Your task to perform on an android device: Open Yahoo.com Image 0: 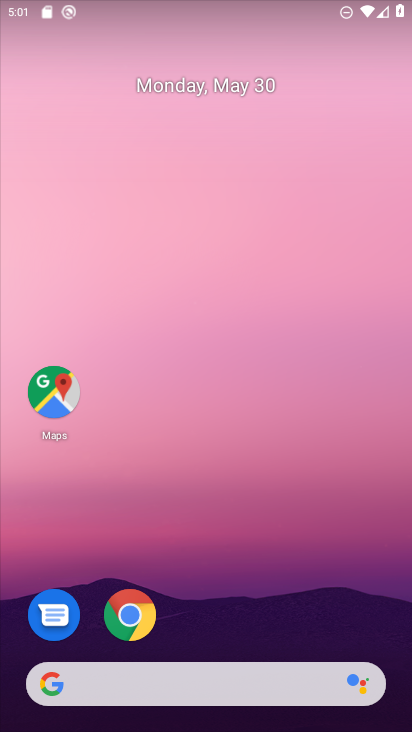
Step 0: click (137, 608)
Your task to perform on an android device: Open Yahoo.com Image 1: 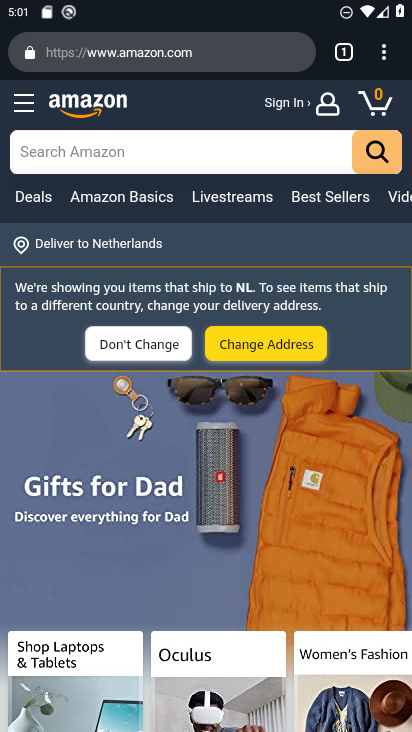
Step 1: click (336, 49)
Your task to perform on an android device: Open Yahoo.com Image 2: 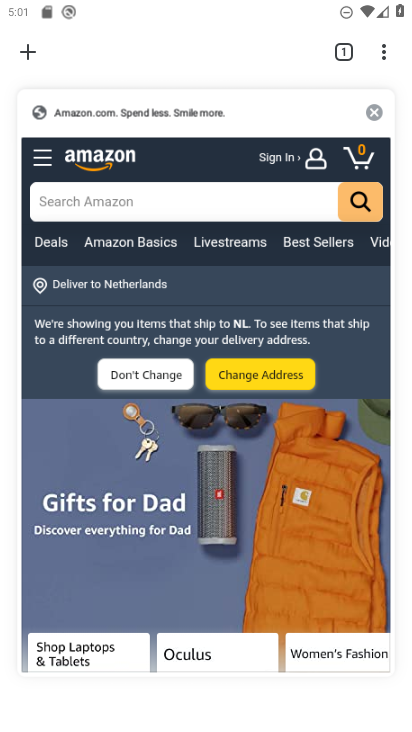
Step 2: click (346, 50)
Your task to perform on an android device: Open Yahoo.com Image 3: 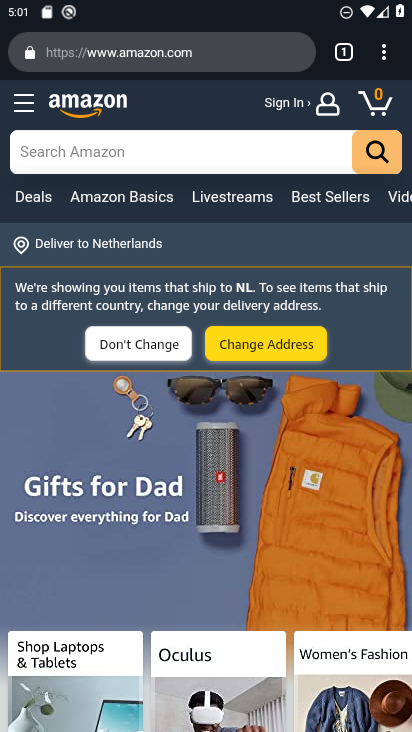
Step 3: click (34, 46)
Your task to perform on an android device: Open Yahoo.com Image 4: 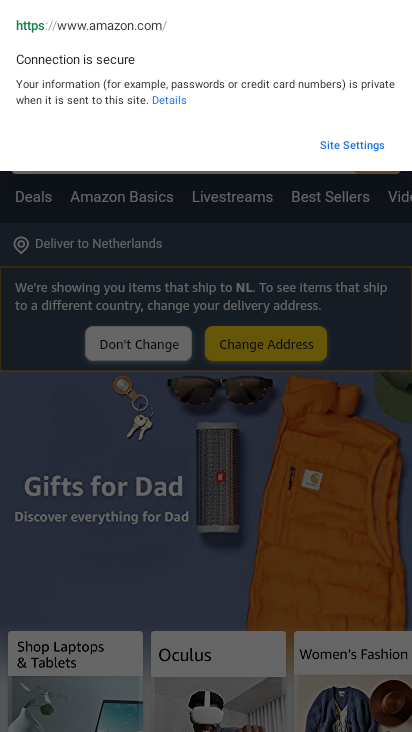
Step 4: click (370, 120)
Your task to perform on an android device: Open Yahoo.com Image 5: 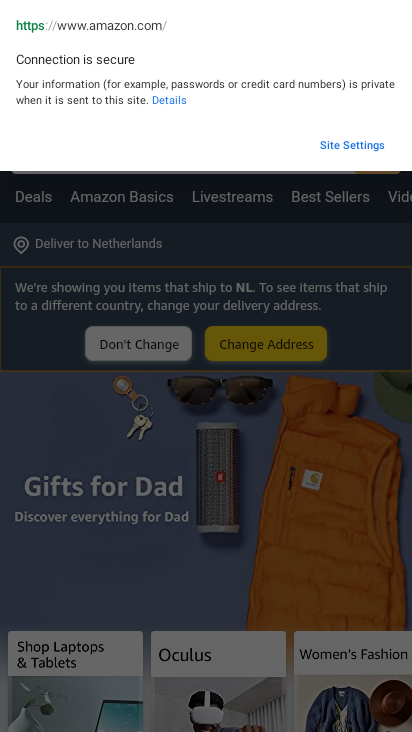
Step 5: click (288, 271)
Your task to perform on an android device: Open Yahoo.com Image 6: 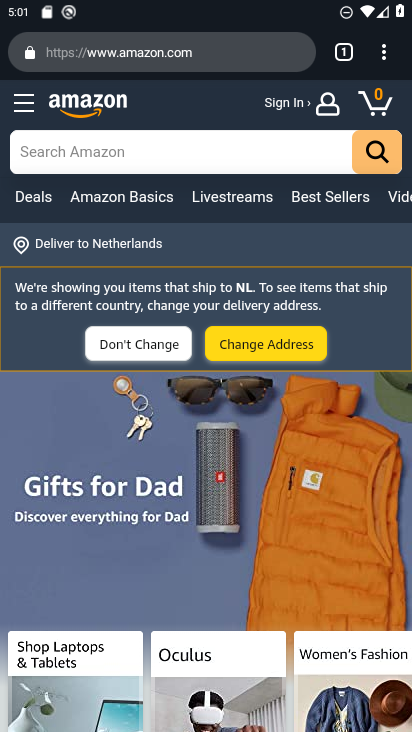
Step 6: click (353, 48)
Your task to perform on an android device: Open Yahoo.com Image 7: 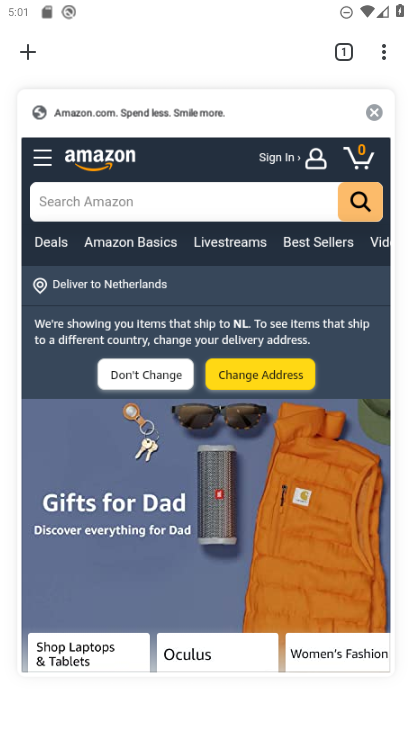
Step 7: click (32, 55)
Your task to perform on an android device: Open Yahoo.com Image 8: 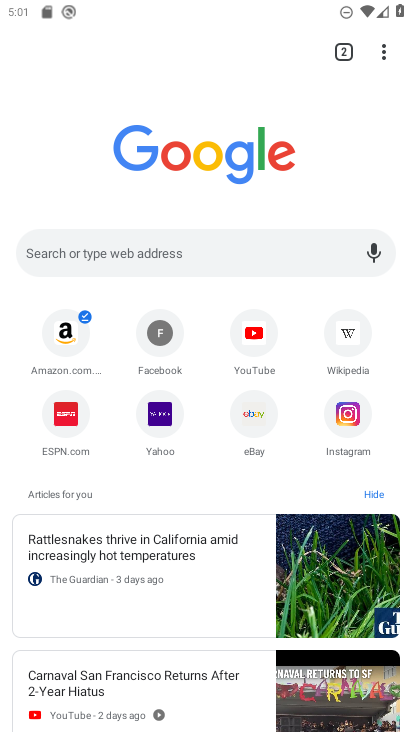
Step 8: click (165, 412)
Your task to perform on an android device: Open Yahoo.com Image 9: 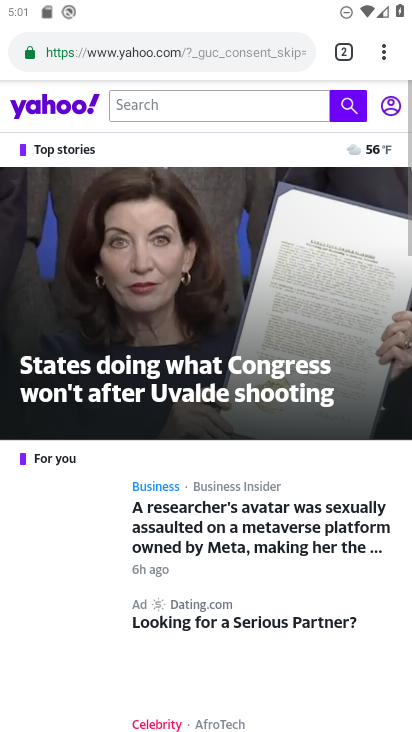
Step 9: task complete